Your task to perform on an android device: turn on improve location accuracy Image 0: 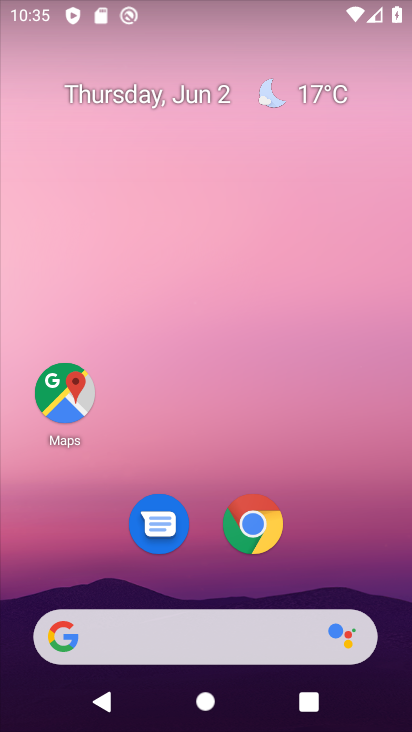
Step 0: drag from (218, 440) to (260, 0)
Your task to perform on an android device: turn on improve location accuracy Image 1: 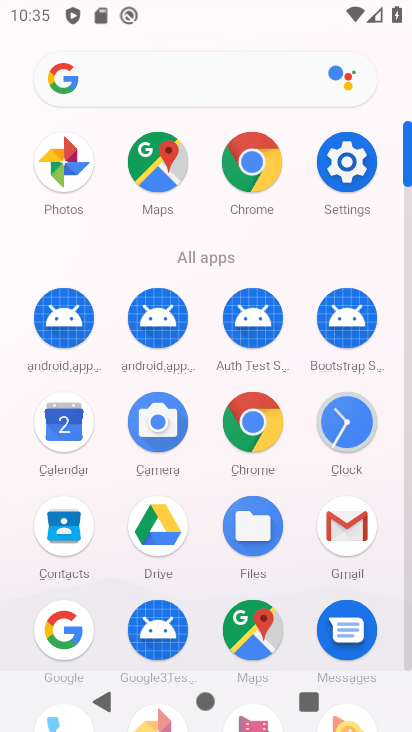
Step 1: click (346, 165)
Your task to perform on an android device: turn on improve location accuracy Image 2: 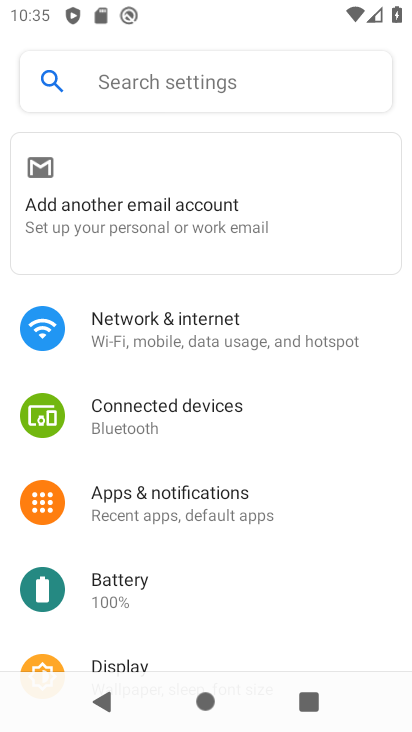
Step 2: drag from (228, 585) to (227, 193)
Your task to perform on an android device: turn on improve location accuracy Image 3: 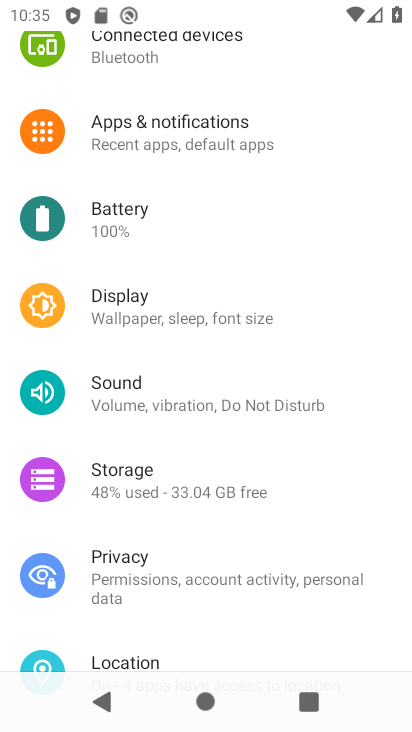
Step 3: drag from (246, 446) to (272, 168)
Your task to perform on an android device: turn on improve location accuracy Image 4: 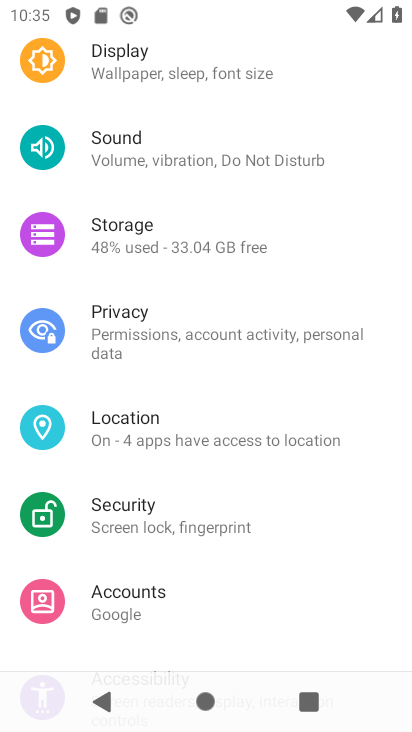
Step 4: click (227, 426)
Your task to perform on an android device: turn on improve location accuracy Image 5: 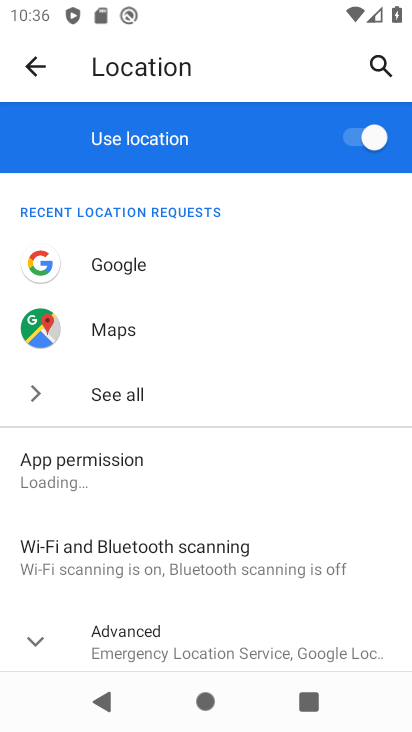
Step 5: drag from (265, 466) to (260, 96)
Your task to perform on an android device: turn on improve location accuracy Image 6: 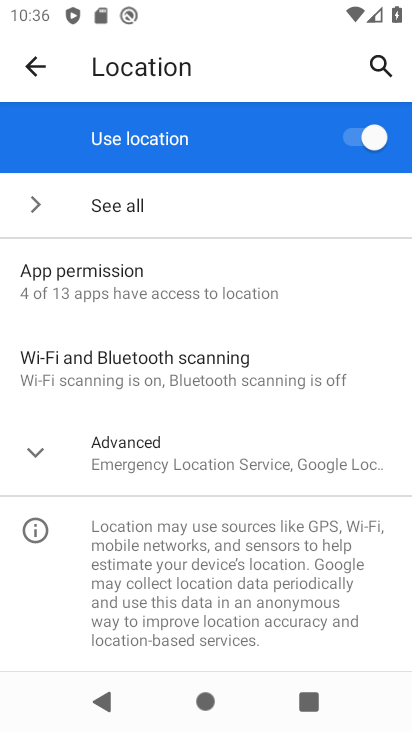
Step 6: click (38, 448)
Your task to perform on an android device: turn on improve location accuracy Image 7: 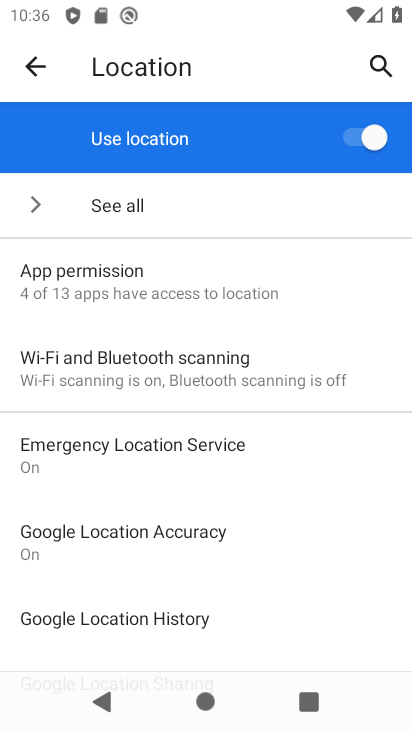
Step 7: task complete